Your task to perform on an android device: stop showing notifications on the lock screen Image 0: 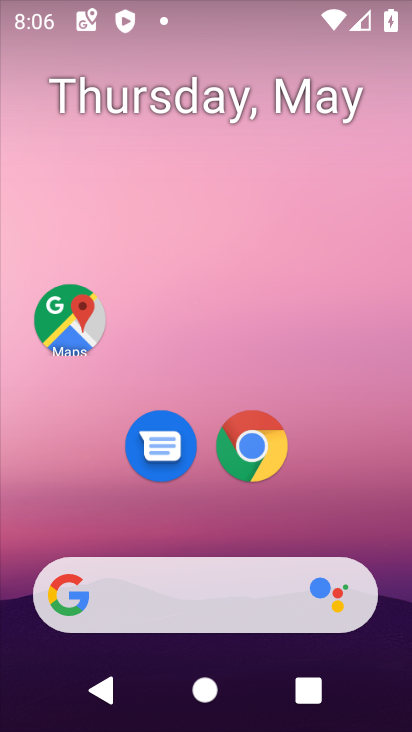
Step 0: drag from (348, 490) to (331, 98)
Your task to perform on an android device: stop showing notifications on the lock screen Image 1: 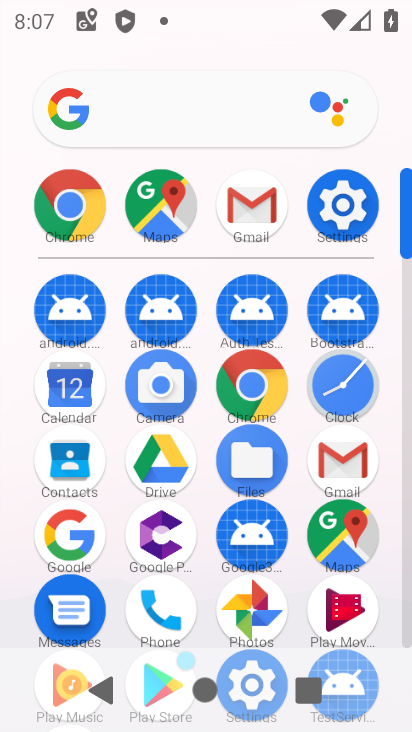
Step 1: click (355, 213)
Your task to perform on an android device: stop showing notifications on the lock screen Image 2: 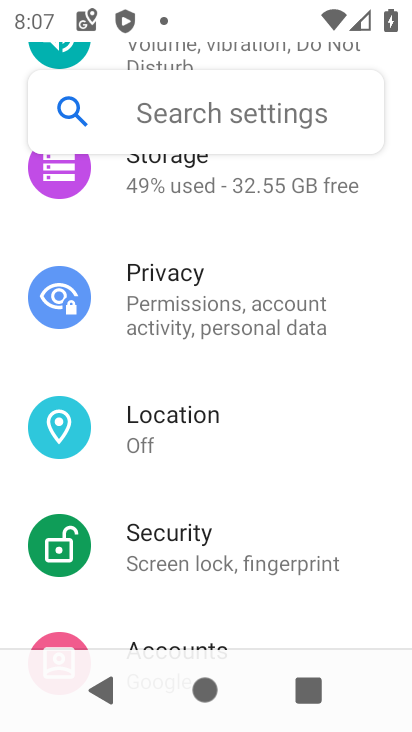
Step 2: drag from (288, 251) to (282, 548)
Your task to perform on an android device: stop showing notifications on the lock screen Image 3: 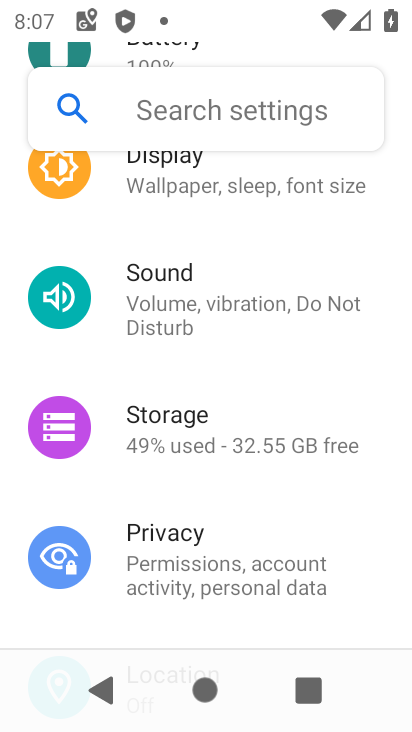
Step 3: drag from (282, 220) to (274, 510)
Your task to perform on an android device: stop showing notifications on the lock screen Image 4: 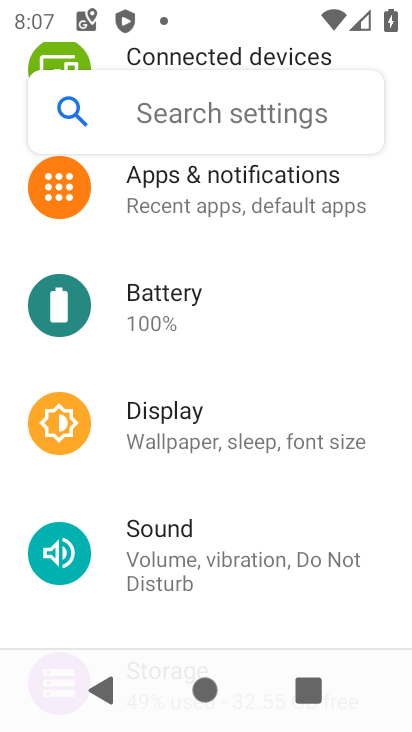
Step 4: click (295, 194)
Your task to perform on an android device: stop showing notifications on the lock screen Image 5: 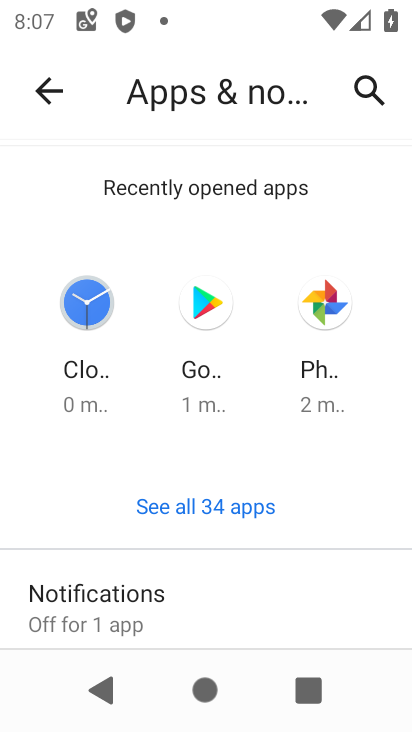
Step 5: drag from (229, 590) to (219, 307)
Your task to perform on an android device: stop showing notifications on the lock screen Image 6: 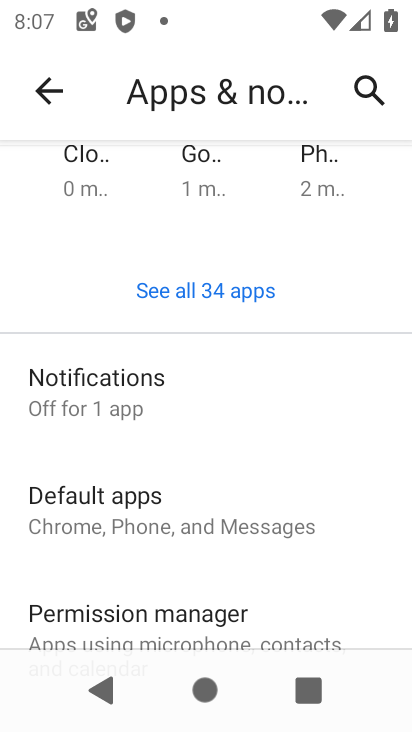
Step 6: click (133, 405)
Your task to perform on an android device: stop showing notifications on the lock screen Image 7: 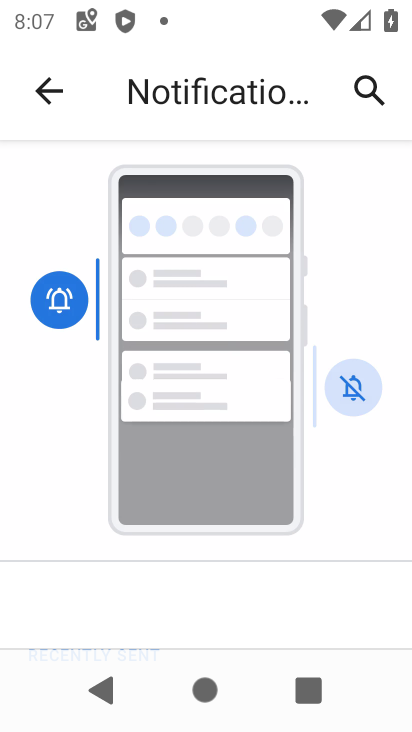
Step 7: drag from (155, 574) to (155, 251)
Your task to perform on an android device: stop showing notifications on the lock screen Image 8: 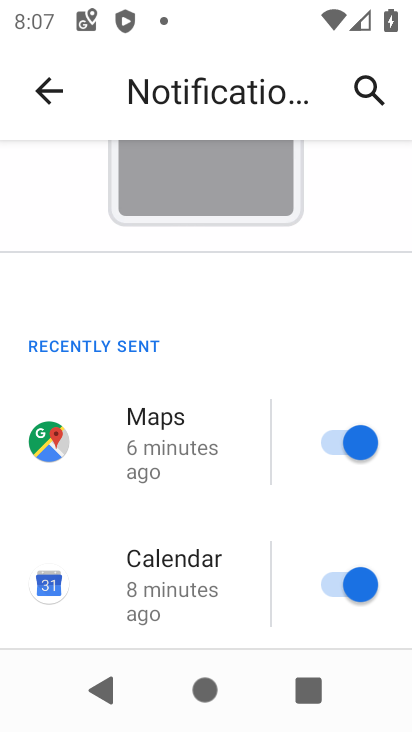
Step 8: drag from (202, 495) to (244, 263)
Your task to perform on an android device: stop showing notifications on the lock screen Image 9: 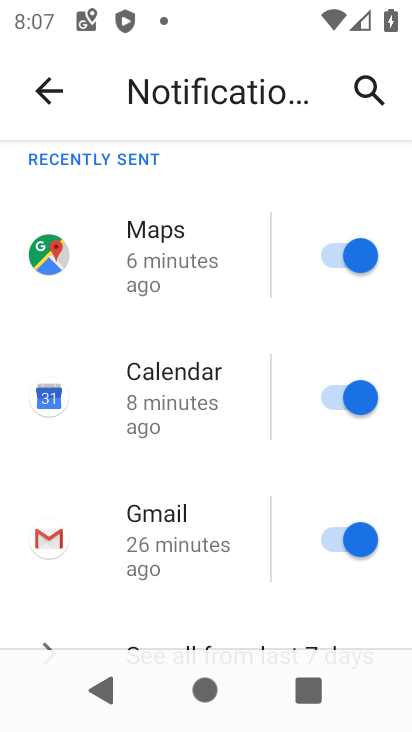
Step 9: drag from (244, 554) to (261, 289)
Your task to perform on an android device: stop showing notifications on the lock screen Image 10: 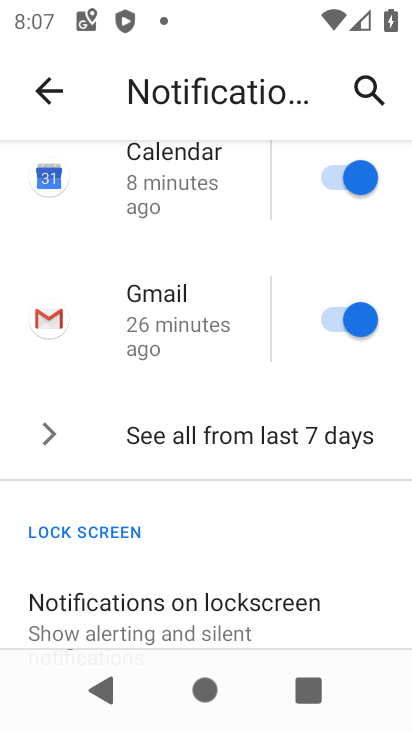
Step 10: click (185, 609)
Your task to perform on an android device: stop showing notifications on the lock screen Image 11: 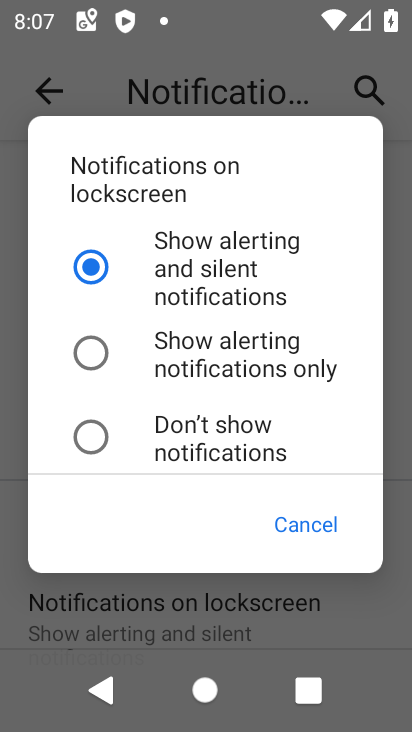
Step 11: click (88, 437)
Your task to perform on an android device: stop showing notifications on the lock screen Image 12: 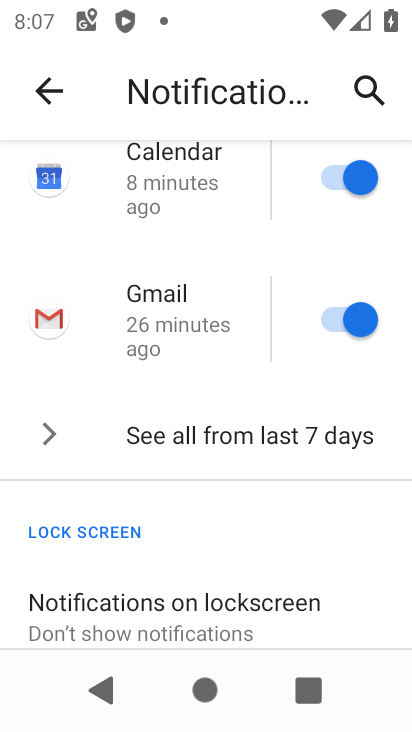
Step 12: task complete